Your task to perform on an android device: Open Google Chrome and open the bookmarks view Image 0: 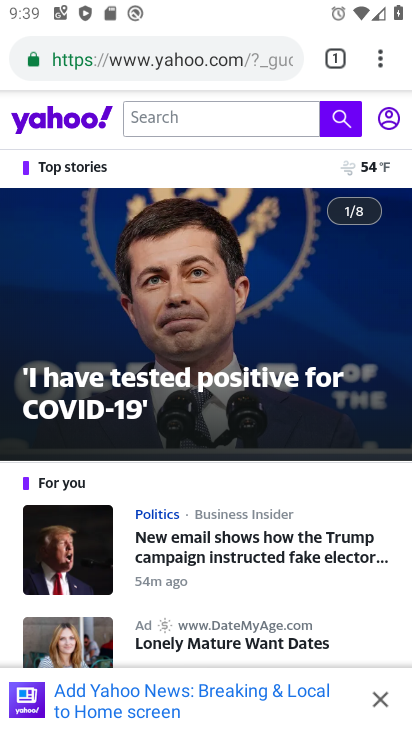
Step 0: press home button
Your task to perform on an android device: Open Google Chrome and open the bookmarks view Image 1: 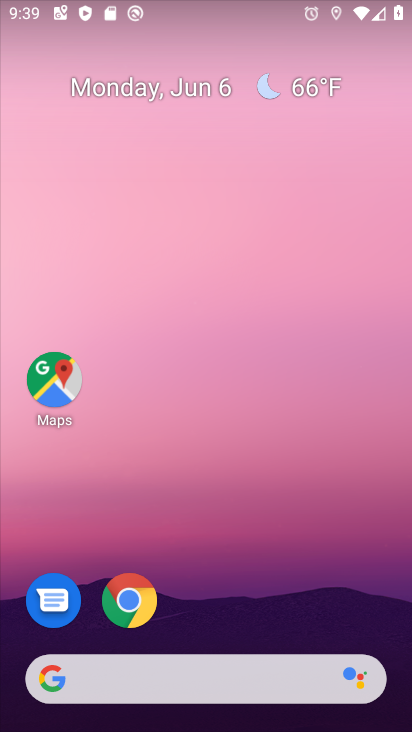
Step 1: click (137, 598)
Your task to perform on an android device: Open Google Chrome and open the bookmarks view Image 2: 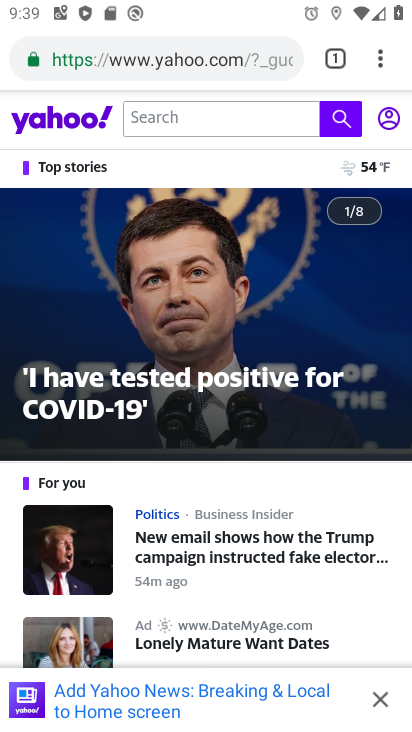
Step 2: click (382, 65)
Your task to perform on an android device: Open Google Chrome and open the bookmarks view Image 3: 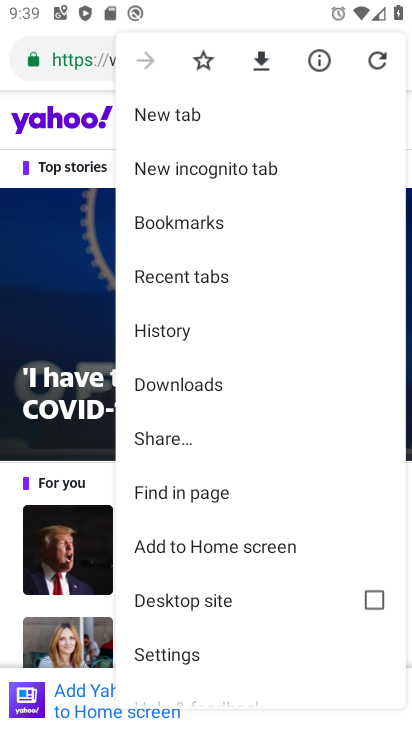
Step 3: click (194, 218)
Your task to perform on an android device: Open Google Chrome and open the bookmarks view Image 4: 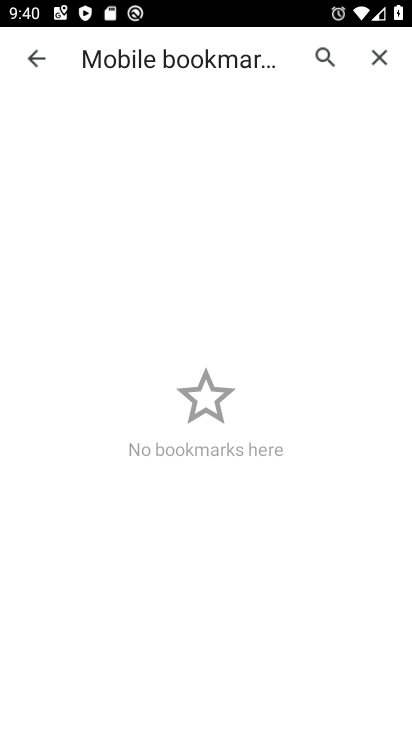
Step 4: task complete